Your task to perform on an android device: Open Reddit.com Image 0: 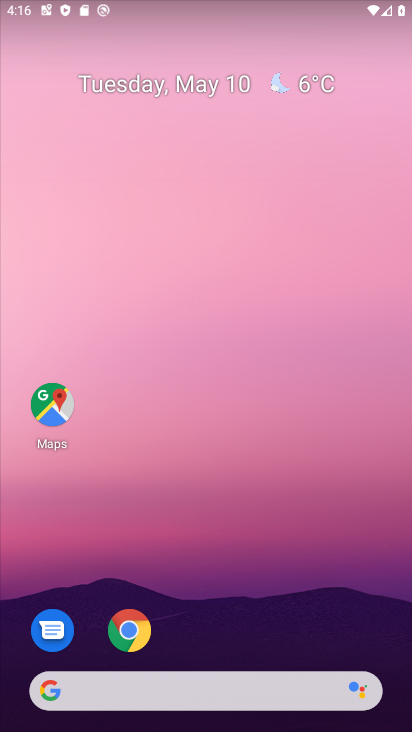
Step 0: drag from (226, 592) to (202, 190)
Your task to perform on an android device: Open Reddit.com Image 1: 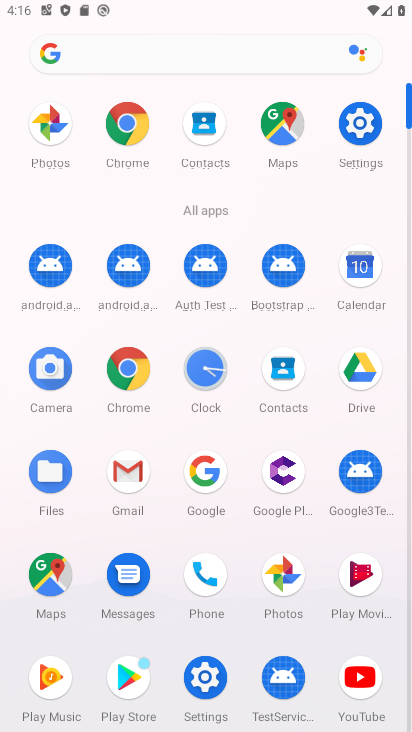
Step 1: click (128, 124)
Your task to perform on an android device: Open Reddit.com Image 2: 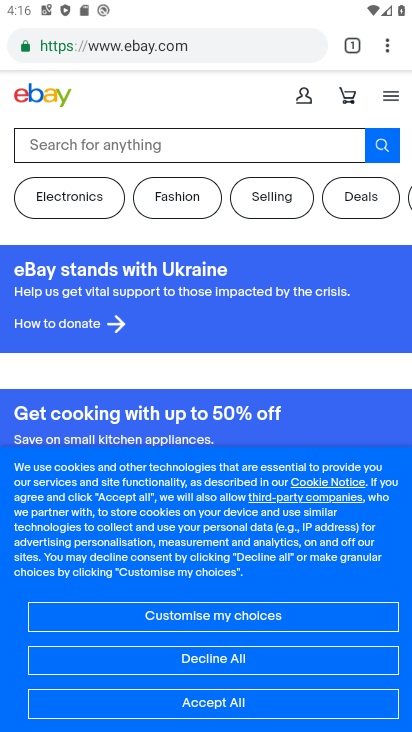
Step 2: click (183, 41)
Your task to perform on an android device: Open Reddit.com Image 3: 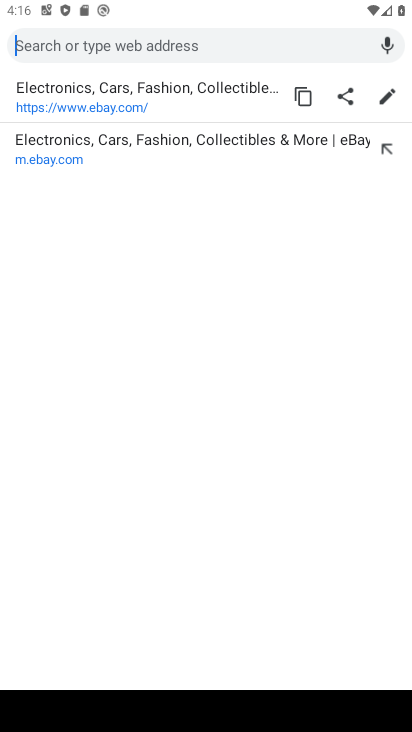
Step 3: type "reddit.com"
Your task to perform on an android device: Open Reddit.com Image 4: 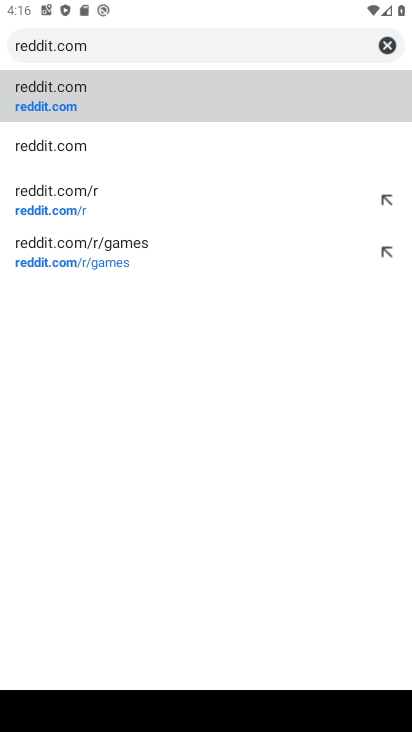
Step 4: click (65, 107)
Your task to perform on an android device: Open Reddit.com Image 5: 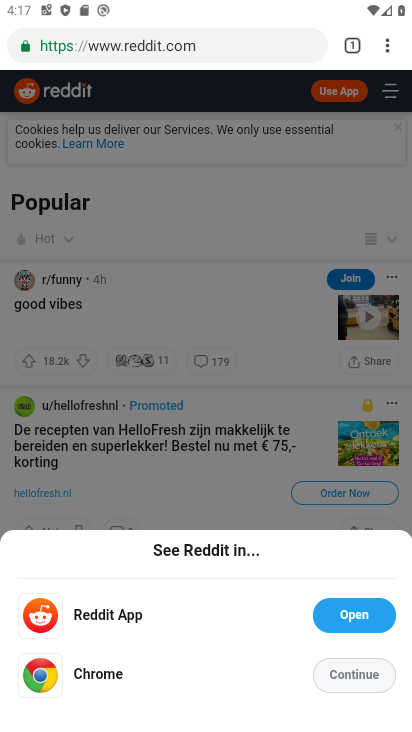
Step 5: task complete